Your task to perform on an android device: turn on the 24-hour format for clock Image 0: 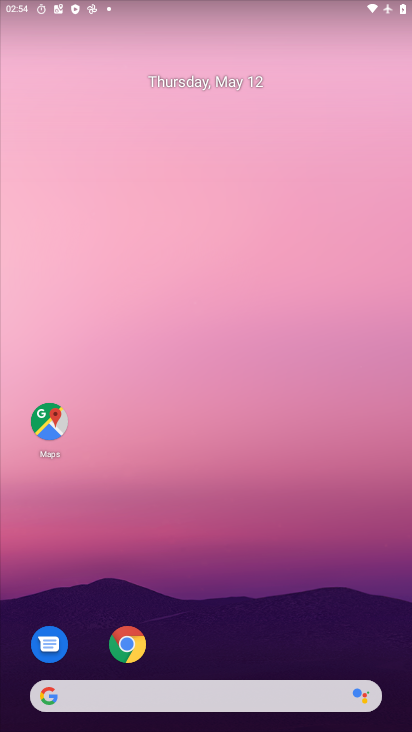
Step 0: drag from (231, 546) to (179, 23)
Your task to perform on an android device: turn on the 24-hour format for clock Image 1: 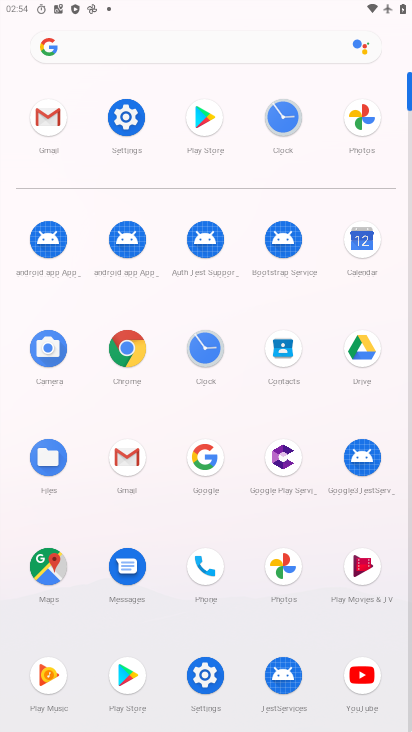
Step 1: click (285, 113)
Your task to perform on an android device: turn on the 24-hour format for clock Image 2: 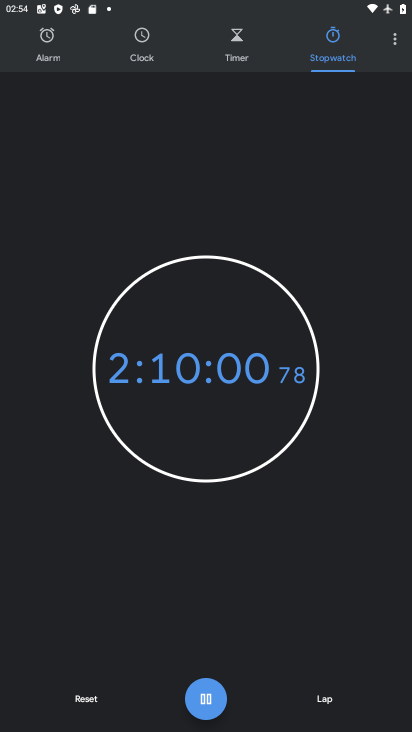
Step 2: click (387, 41)
Your task to perform on an android device: turn on the 24-hour format for clock Image 3: 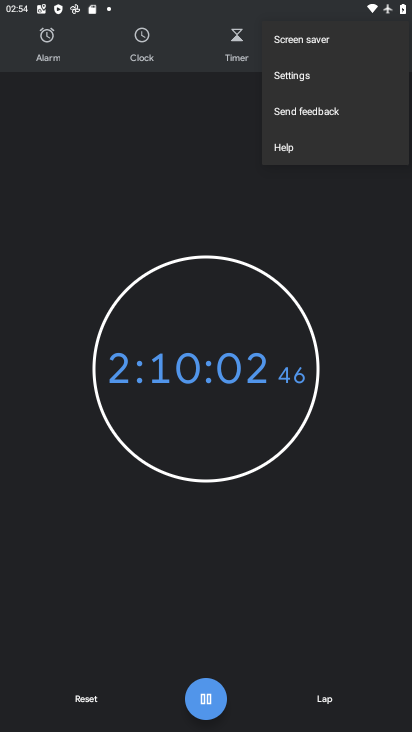
Step 3: click (291, 81)
Your task to perform on an android device: turn on the 24-hour format for clock Image 4: 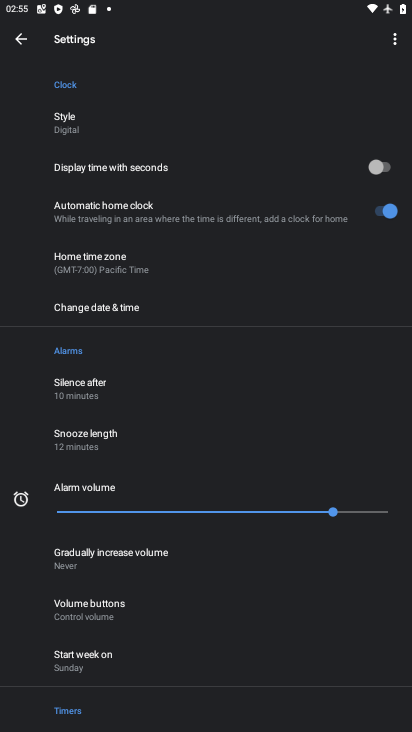
Step 4: click (127, 304)
Your task to perform on an android device: turn on the 24-hour format for clock Image 5: 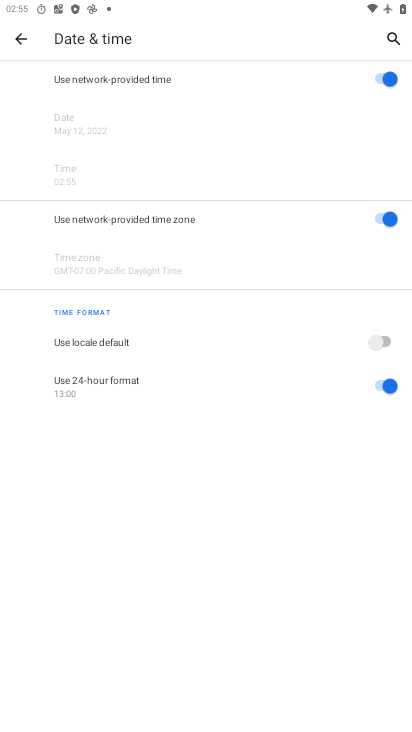
Step 5: task complete